Your task to perform on an android device: Open accessibility settings Image 0: 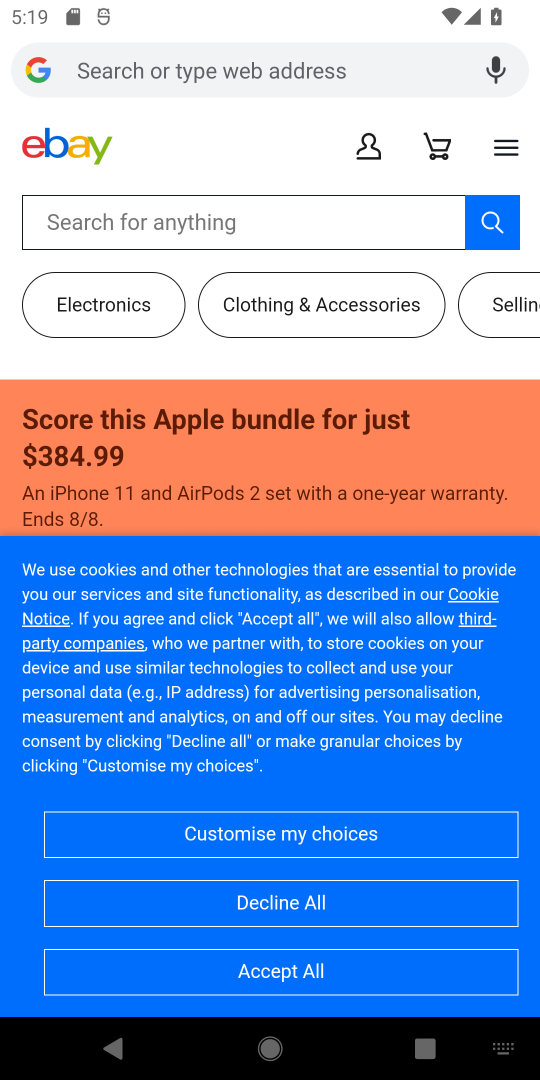
Step 0: press home button
Your task to perform on an android device: Open accessibility settings Image 1: 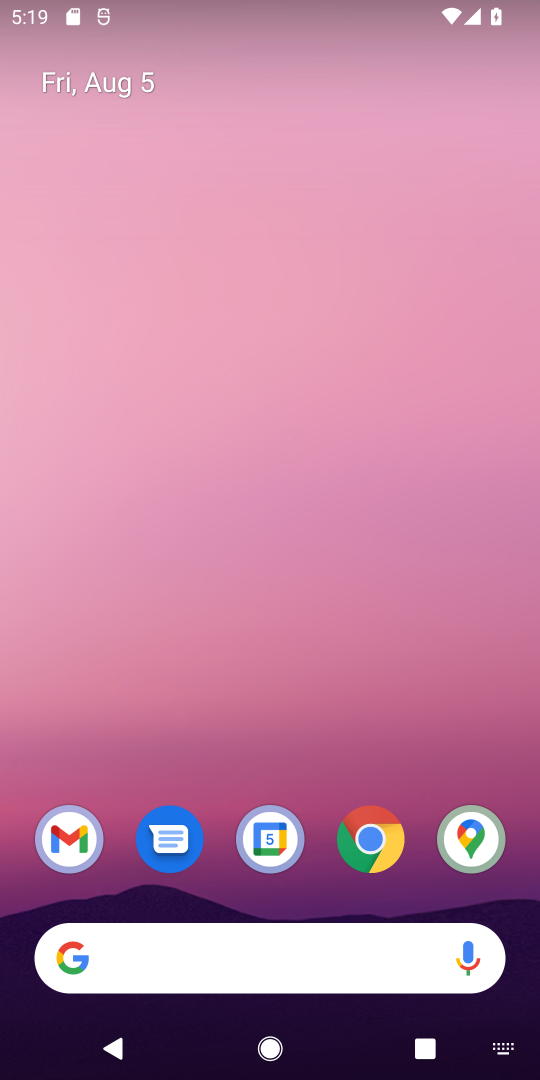
Step 1: drag from (307, 537) to (312, 191)
Your task to perform on an android device: Open accessibility settings Image 2: 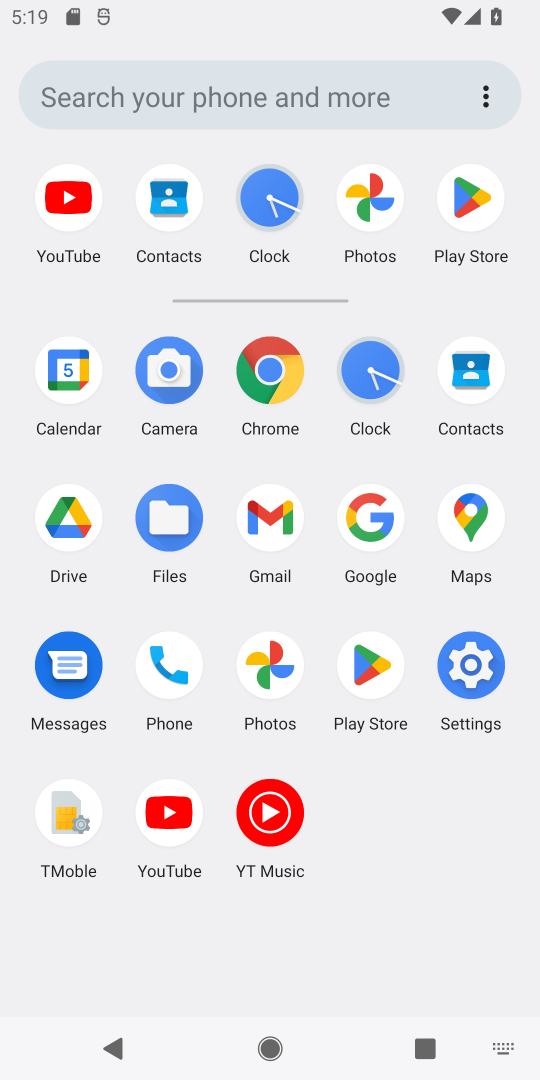
Step 2: click (459, 682)
Your task to perform on an android device: Open accessibility settings Image 3: 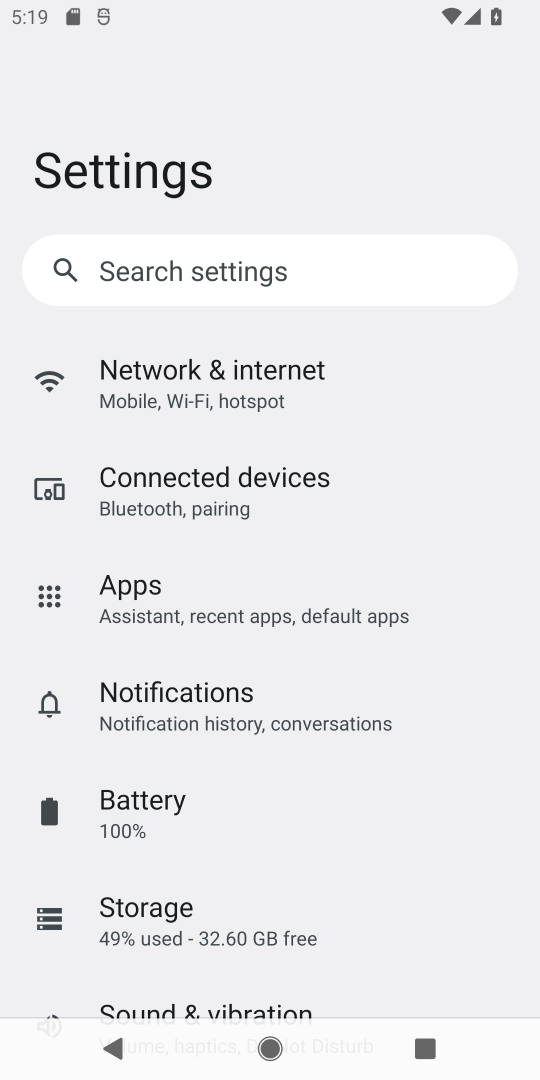
Step 3: drag from (257, 916) to (265, 266)
Your task to perform on an android device: Open accessibility settings Image 4: 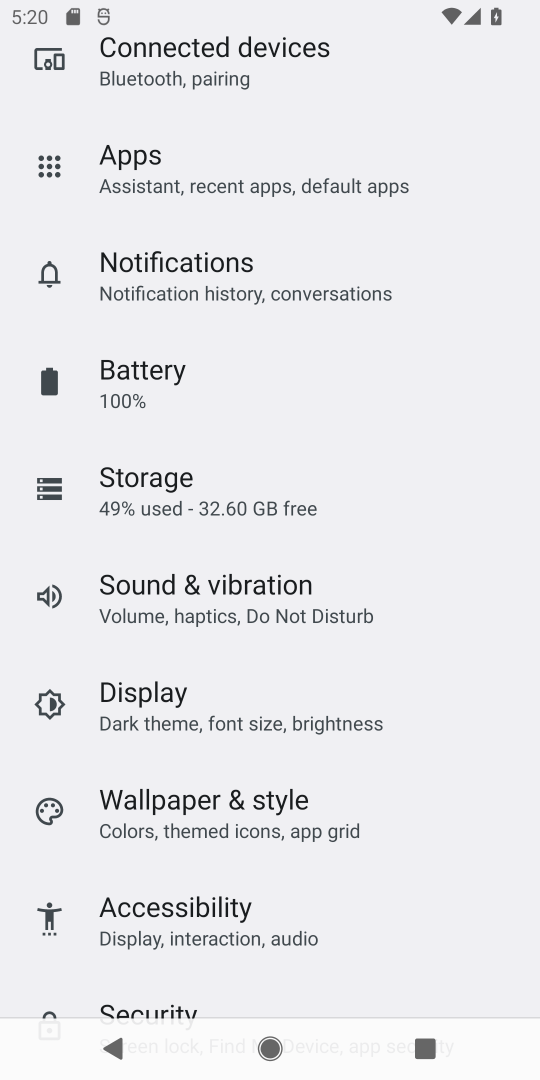
Step 4: drag from (310, 873) to (339, 476)
Your task to perform on an android device: Open accessibility settings Image 5: 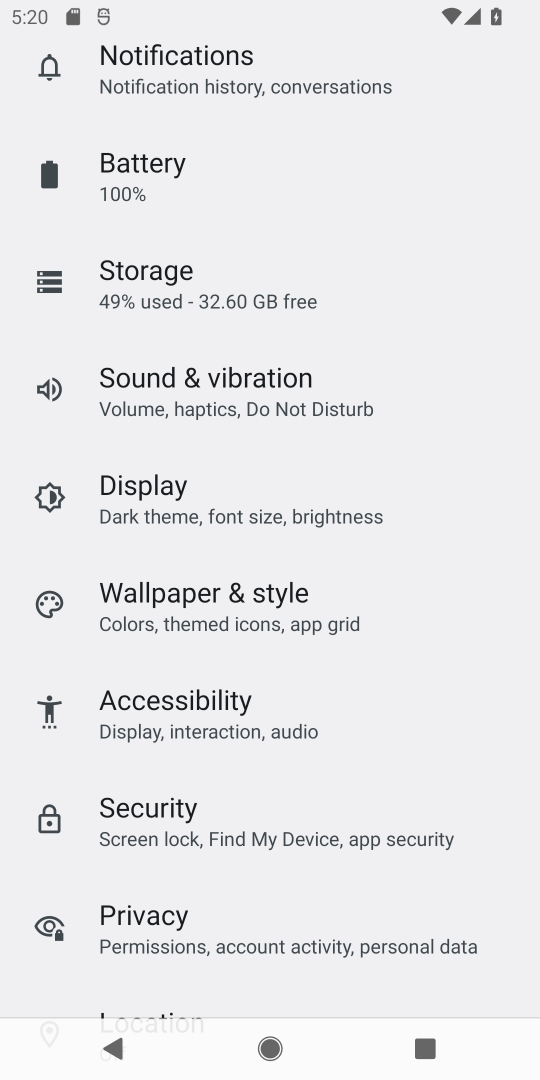
Step 5: click (237, 730)
Your task to perform on an android device: Open accessibility settings Image 6: 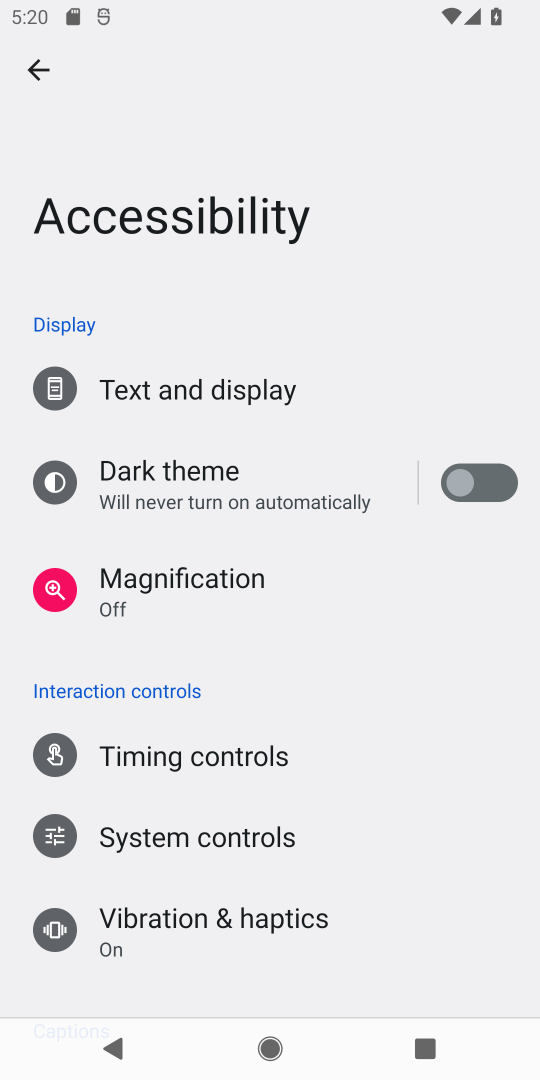
Step 6: task complete